Your task to perform on an android device: Show me popular games on the Play Store Image 0: 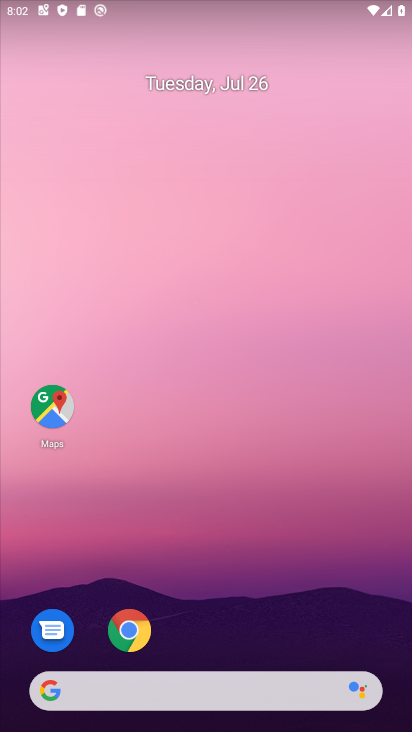
Step 0: drag from (254, 657) to (159, 0)
Your task to perform on an android device: Show me popular games on the Play Store Image 1: 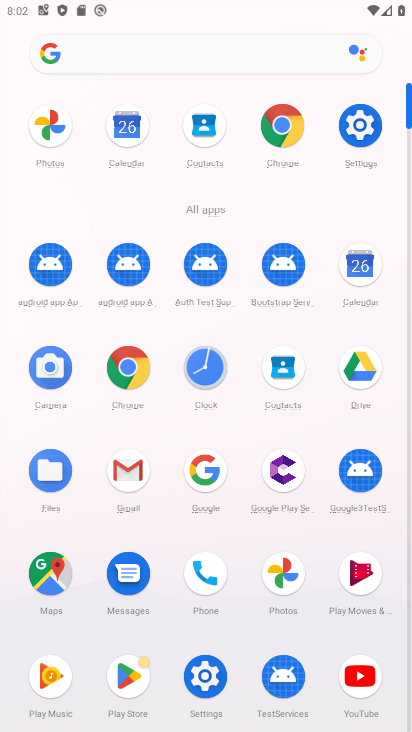
Step 1: click (120, 699)
Your task to perform on an android device: Show me popular games on the Play Store Image 2: 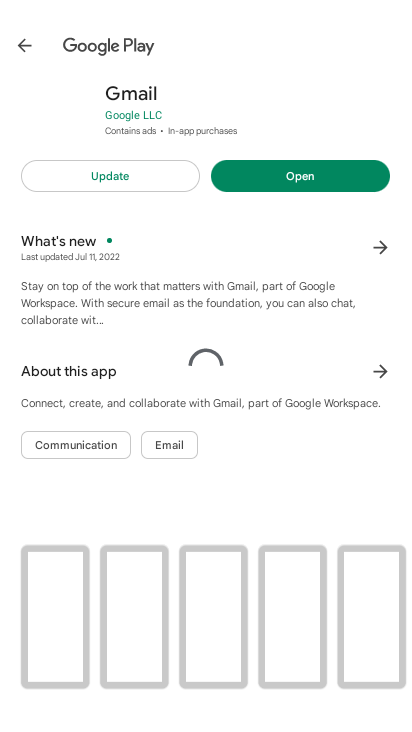
Step 2: task complete